Your task to perform on an android device: open device folders in google photos Image 0: 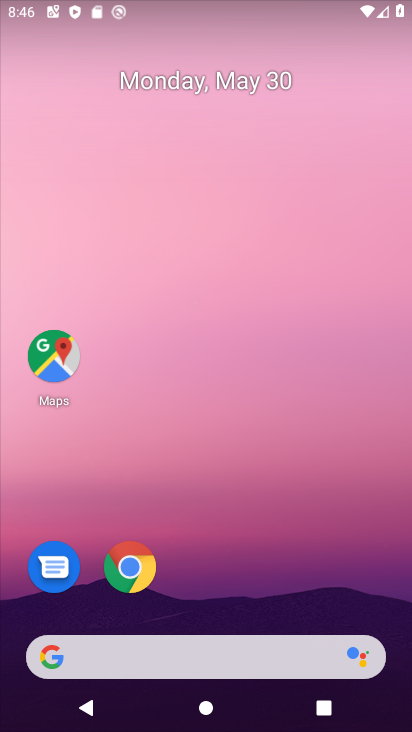
Step 0: drag from (203, 612) to (210, 222)
Your task to perform on an android device: open device folders in google photos Image 1: 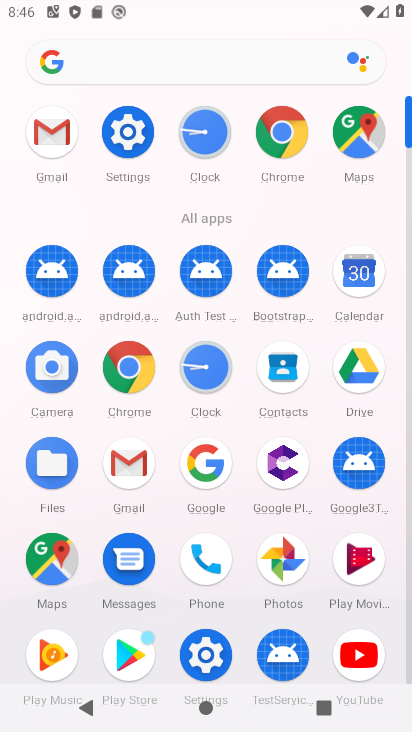
Step 1: click (293, 549)
Your task to perform on an android device: open device folders in google photos Image 2: 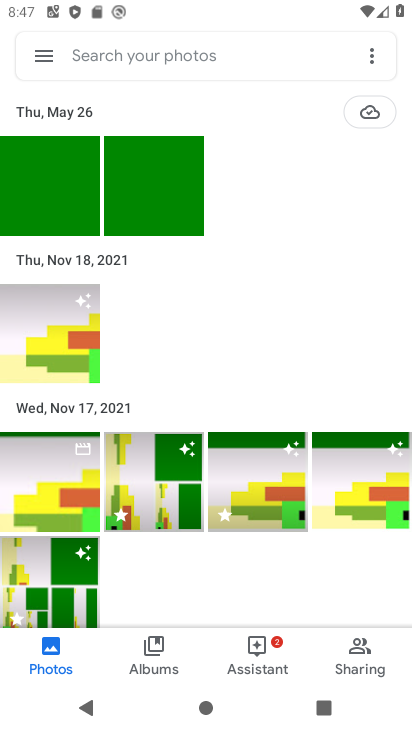
Step 2: click (55, 51)
Your task to perform on an android device: open device folders in google photos Image 3: 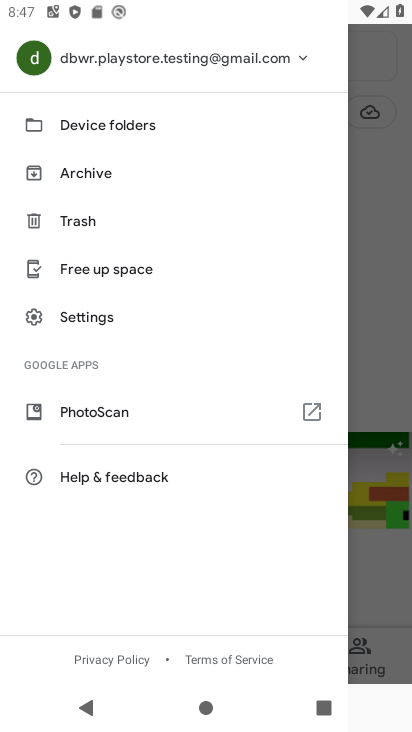
Step 3: click (60, 127)
Your task to perform on an android device: open device folders in google photos Image 4: 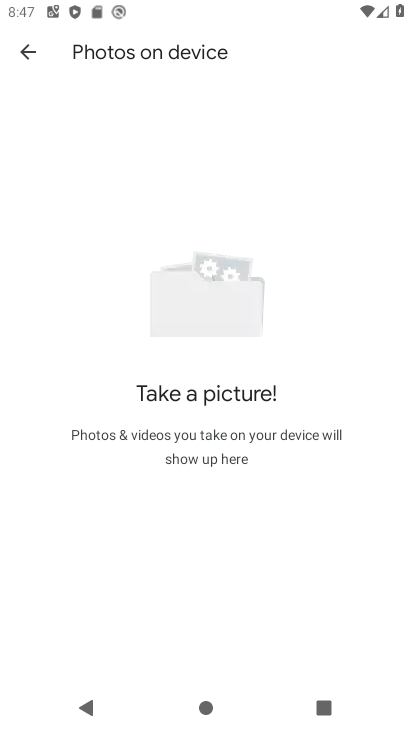
Step 4: task complete